Your task to perform on an android device: open the mobile data screen to see how much data has been used Image 0: 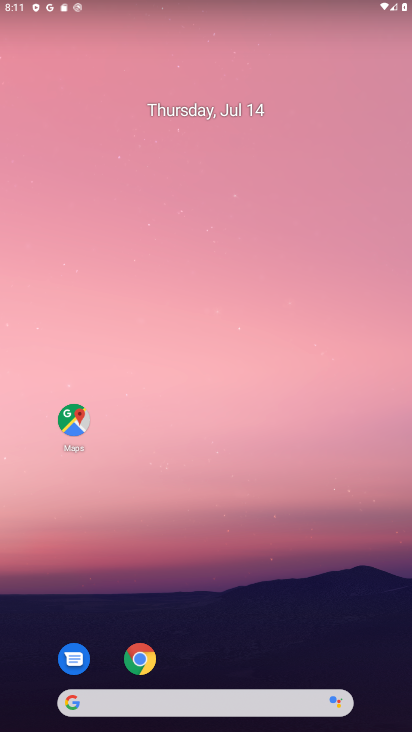
Step 0: drag from (224, 622) to (200, 255)
Your task to perform on an android device: open the mobile data screen to see how much data has been used Image 1: 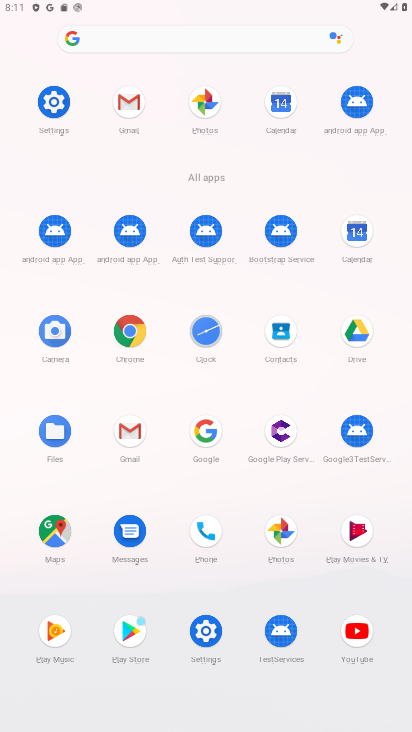
Step 1: click (51, 120)
Your task to perform on an android device: open the mobile data screen to see how much data has been used Image 2: 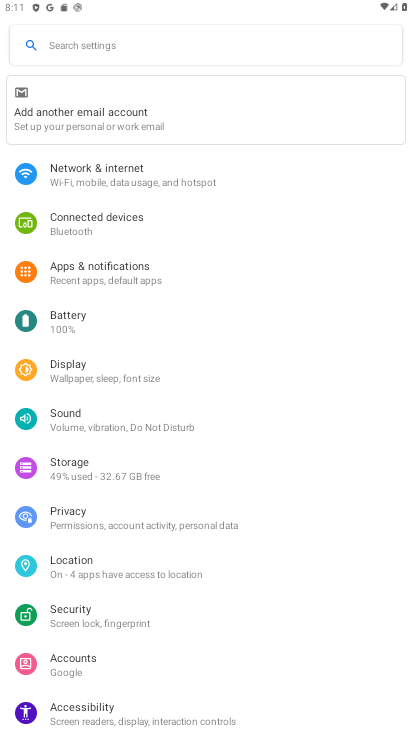
Step 2: click (115, 182)
Your task to perform on an android device: open the mobile data screen to see how much data has been used Image 3: 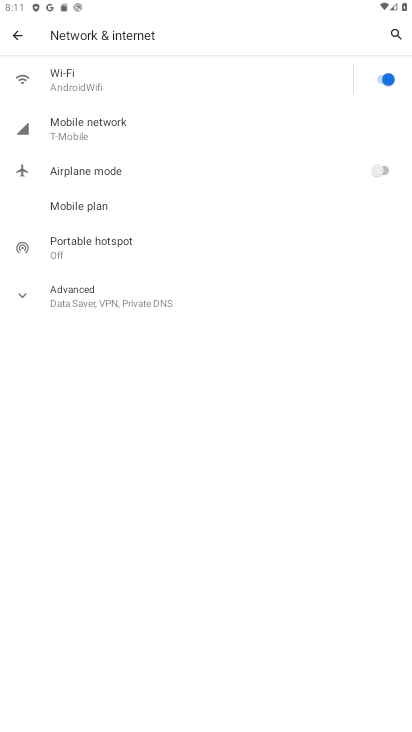
Step 3: click (77, 129)
Your task to perform on an android device: open the mobile data screen to see how much data has been used Image 4: 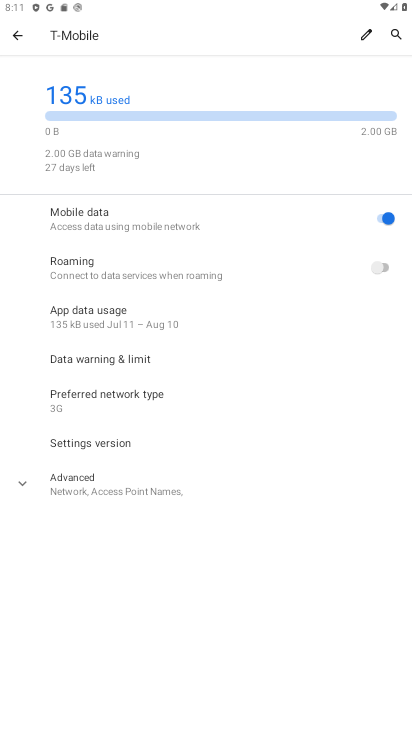
Step 4: task complete